Your task to perform on an android device: turn off notifications in google photos Image 0: 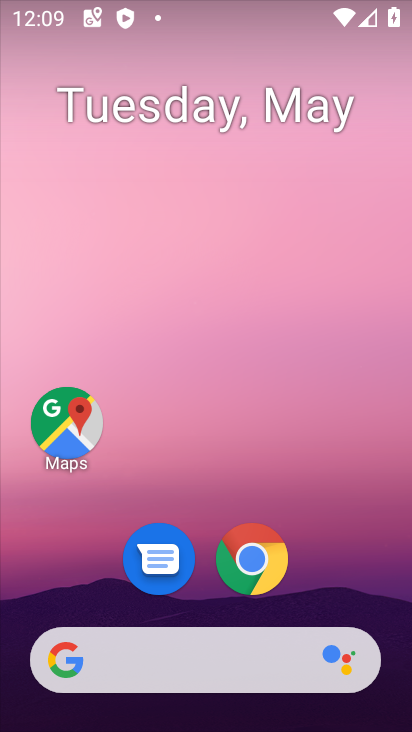
Step 0: drag from (336, 579) to (330, 71)
Your task to perform on an android device: turn off notifications in google photos Image 1: 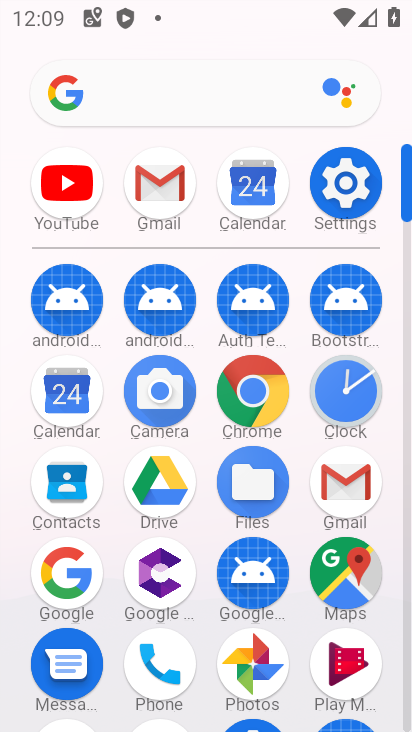
Step 1: click (257, 666)
Your task to perform on an android device: turn off notifications in google photos Image 2: 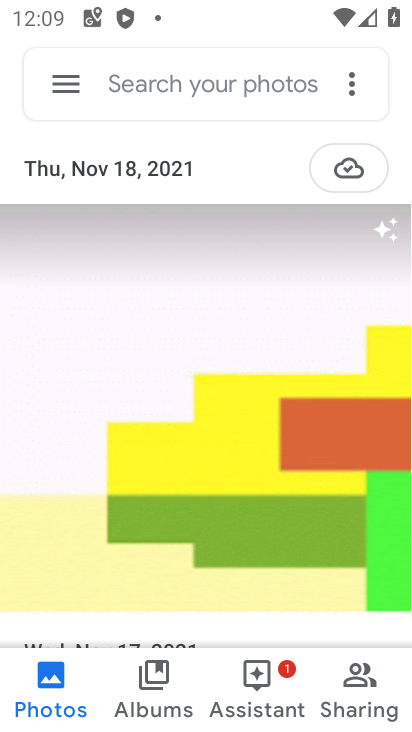
Step 2: click (74, 93)
Your task to perform on an android device: turn off notifications in google photos Image 3: 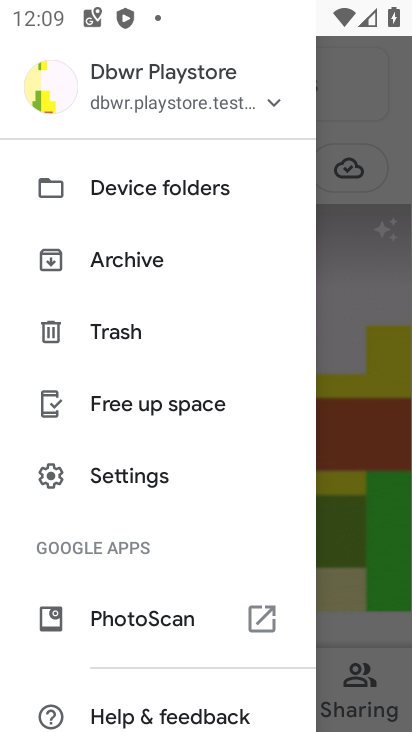
Step 3: click (158, 501)
Your task to perform on an android device: turn off notifications in google photos Image 4: 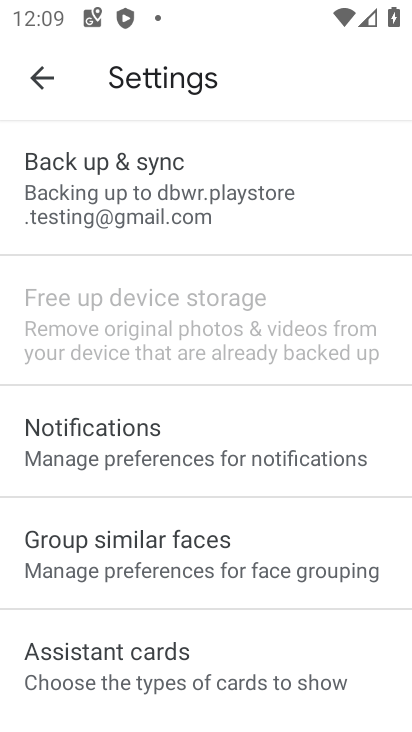
Step 4: click (184, 469)
Your task to perform on an android device: turn off notifications in google photos Image 5: 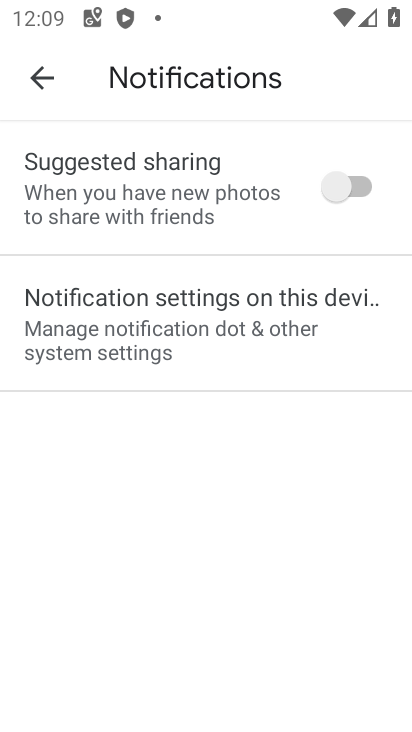
Step 5: click (285, 225)
Your task to perform on an android device: turn off notifications in google photos Image 6: 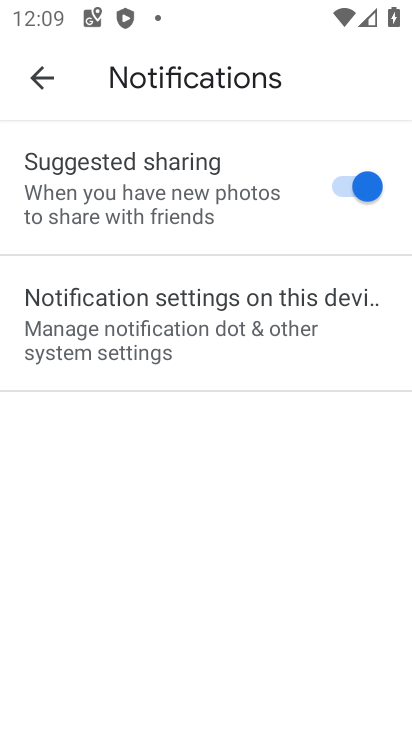
Step 6: task complete